Your task to perform on an android device: turn on priority inbox in the gmail app Image 0: 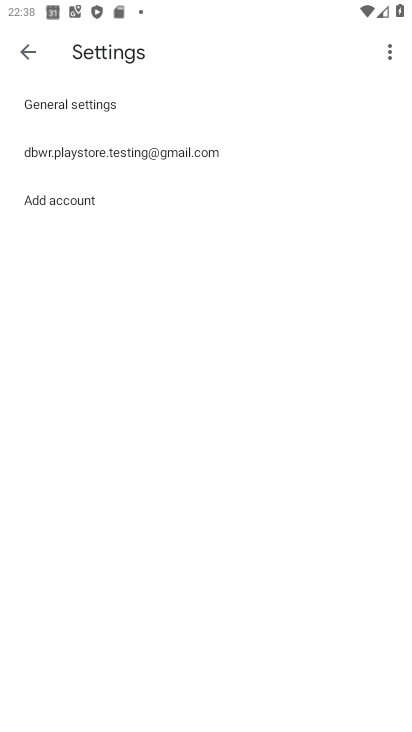
Step 0: press home button
Your task to perform on an android device: turn on priority inbox in the gmail app Image 1: 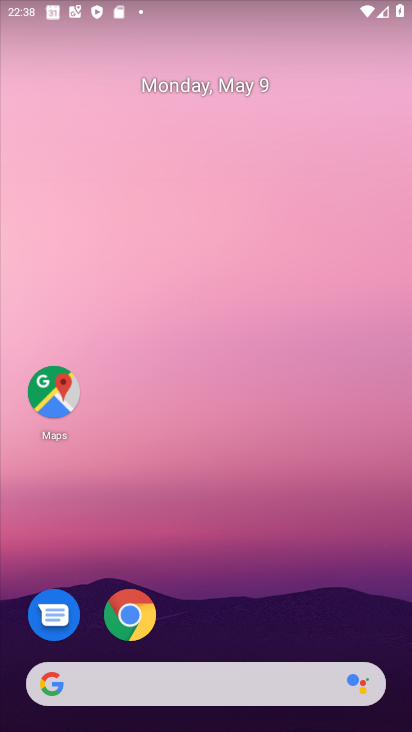
Step 1: drag from (194, 493) to (227, 300)
Your task to perform on an android device: turn on priority inbox in the gmail app Image 2: 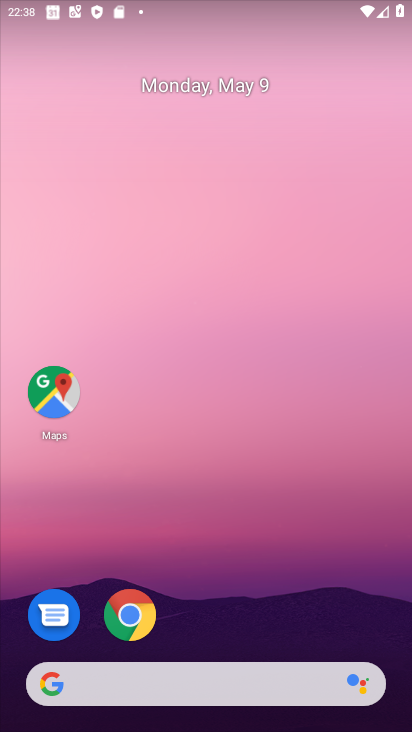
Step 2: drag from (203, 625) to (245, 205)
Your task to perform on an android device: turn on priority inbox in the gmail app Image 3: 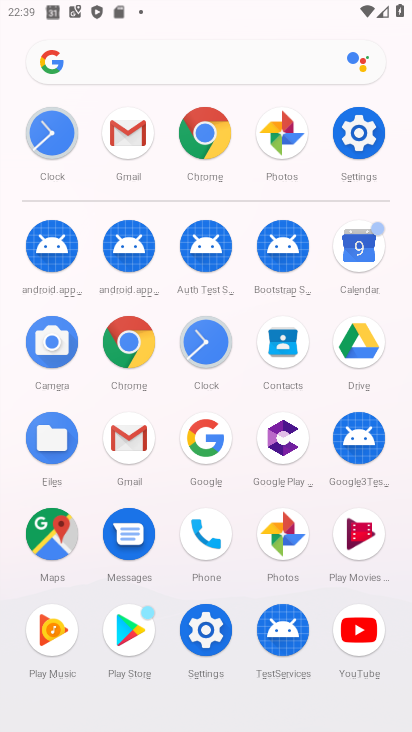
Step 3: click (131, 446)
Your task to perform on an android device: turn on priority inbox in the gmail app Image 4: 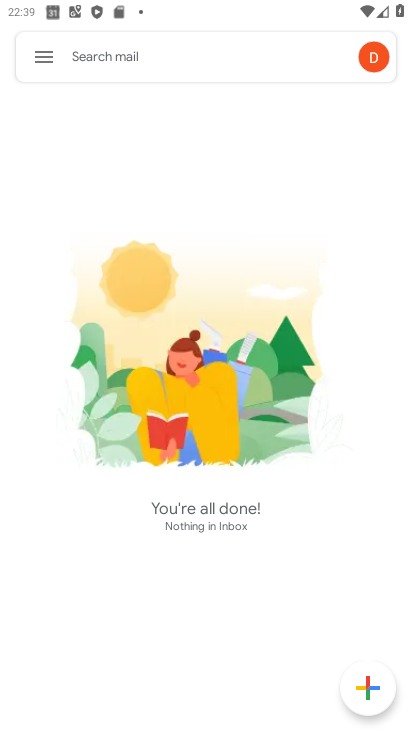
Step 4: click (47, 57)
Your task to perform on an android device: turn on priority inbox in the gmail app Image 5: 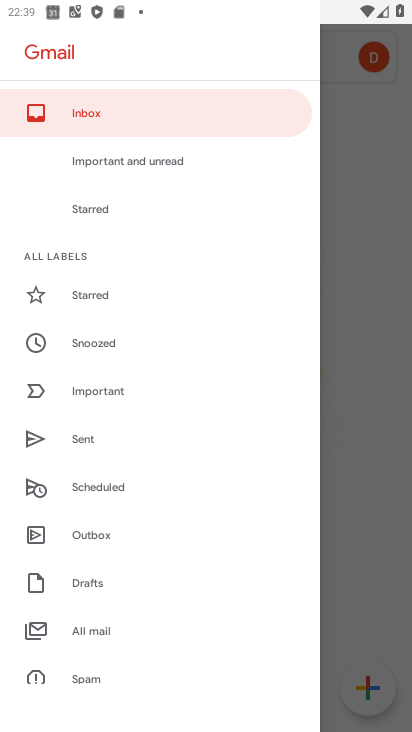
Step 5: drag from (164, 608) to (197, 344)
Your task to perform on an android device: turn on priority inbox in the gmail app Image 6: 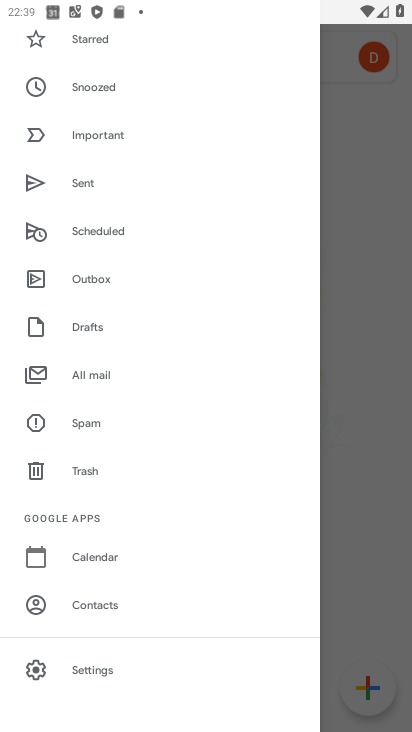
Step 6: click (90, 673)
Your task to perform on an android device: turn on priority inbox in the gmail app Image 7: 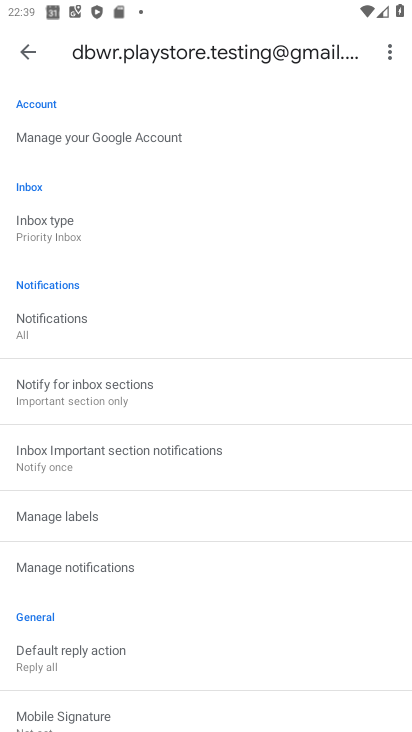
Step 7: click (93, 231)
Your task to perform on an android device: turn on priority inbox in the gmail app Image 8: 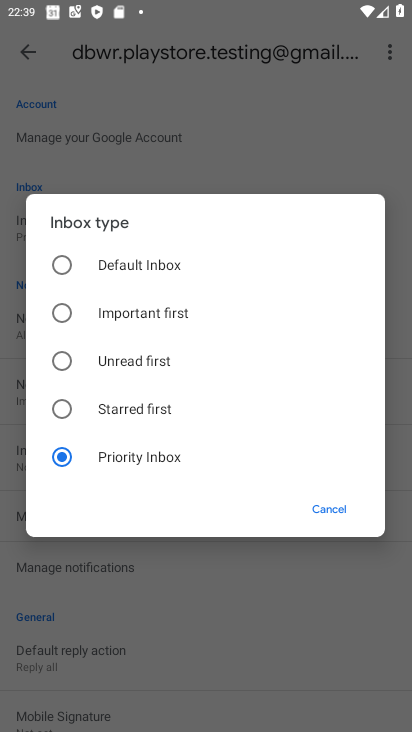
Step 8: task complete